Your task to perform on an android device: see sites visited before in the chrome app Image 0: 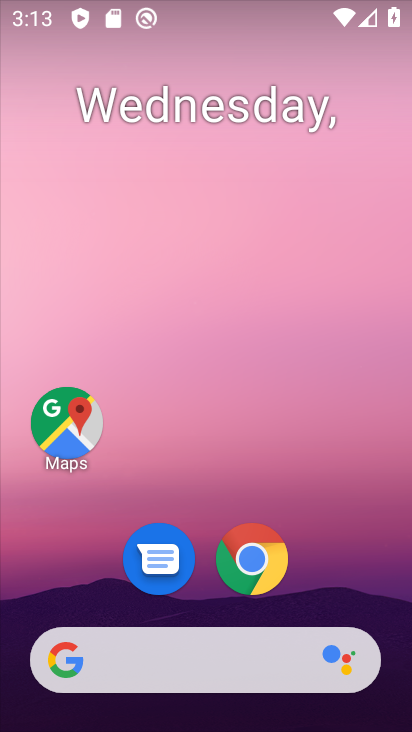
Step 0: click (270, 566)
Your task to perform on an android device: see sites visited before in the chrome app Image 1: 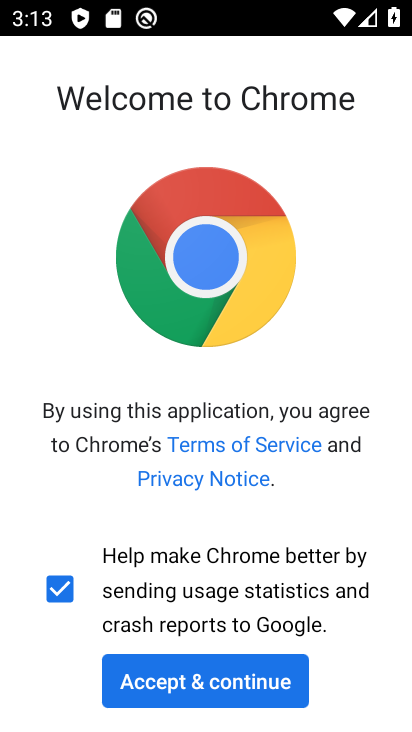
Step 1: click (254, 689)
Your task to perform on an android device: see sites visited before in the chrome app Image 2: 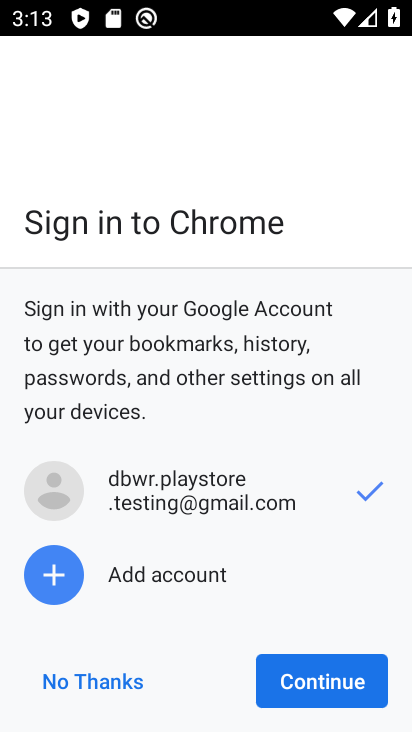
Step 2: click (263, 668)
Your task to perform on an android device: see sites visited before in the chrome app Image 3: 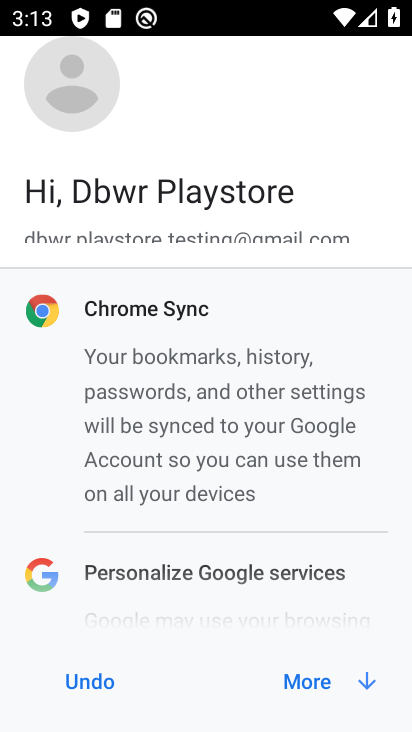
Step 3: click (329, 684)
Your task to perform on an android device: see sites visited before in the chrome app Image 4: 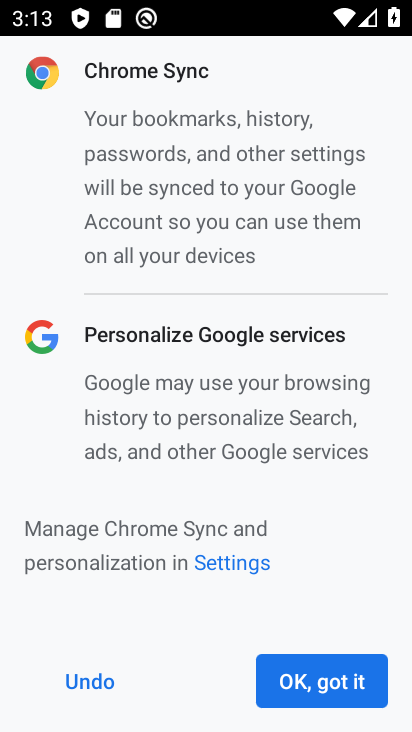
Step 4: click (339, 679)
Your task to perform on an android device: see sites visited before in the chrome app Image 5: 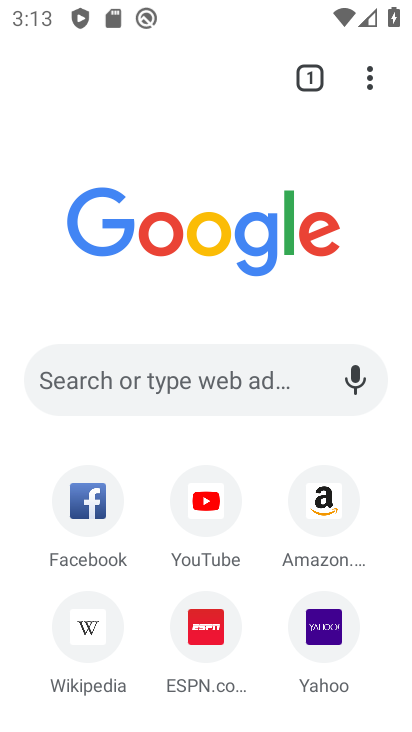
Step 5: task complete